Your task to perform on an android device: turn off data saver in the chrome app Image 0: 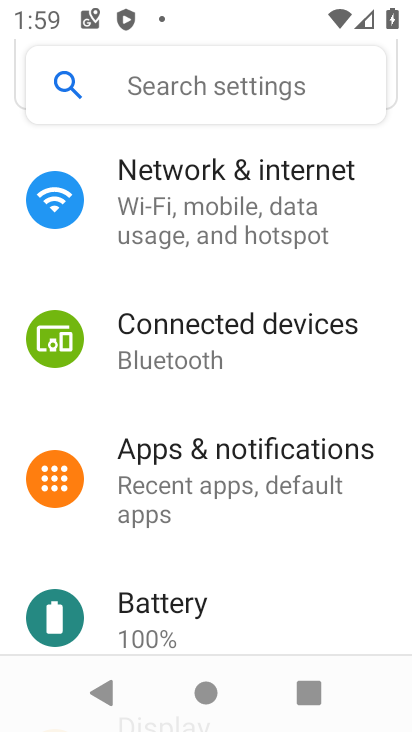
Step 0: press home button
Your task to perform on an android device: turn off data saver in the chrome app Image 1: 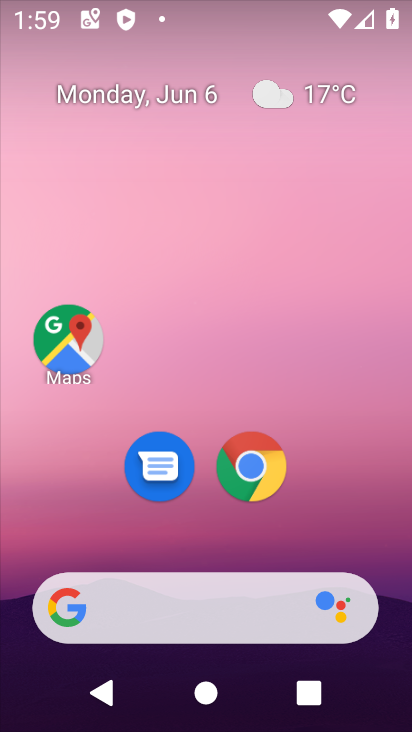
Step 1: click (253, 459)
Your task to perform on an android device: turn off data saver in the chrome app Image 2: 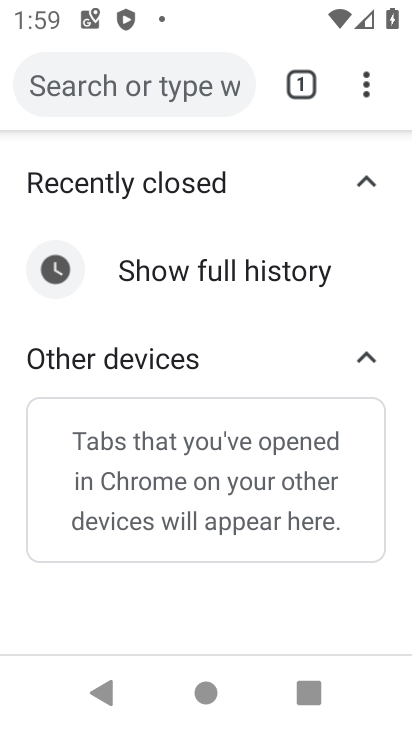
Step 2: drag from (365, 85) to (148, 498)
Your task to perform on an android device: turn off data saver in the chrome app Image 3: 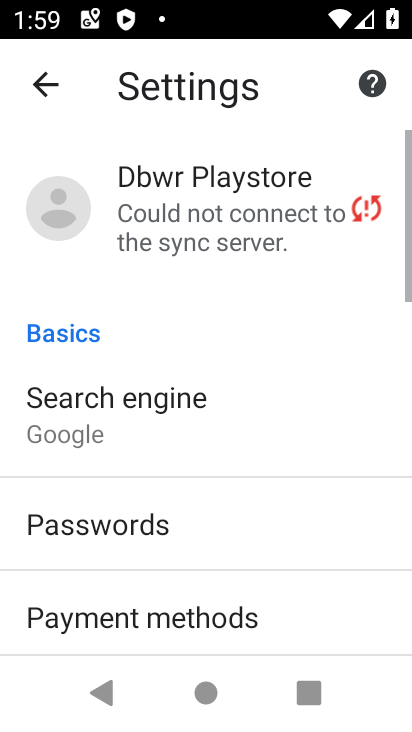
Step 3: drag from (282, 599) to (283, 123)
Your task to perform on an android device: turn off data saver in the chrome app Image 4: 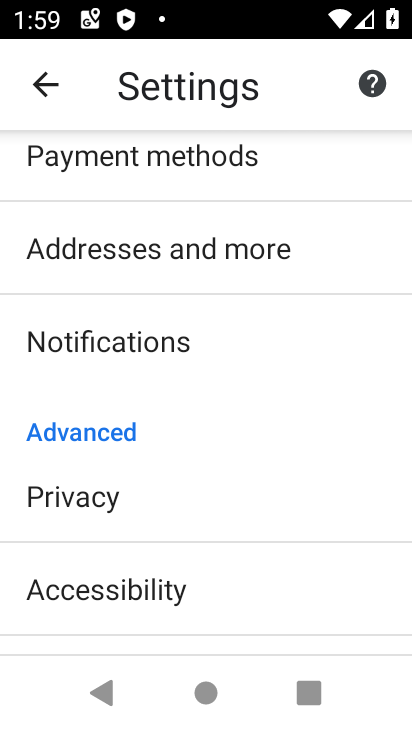
Step 4: drag from (249, 460) to (249, 173)
Your task to perform on an android device: turn off data saver in the chrome app Image 5: 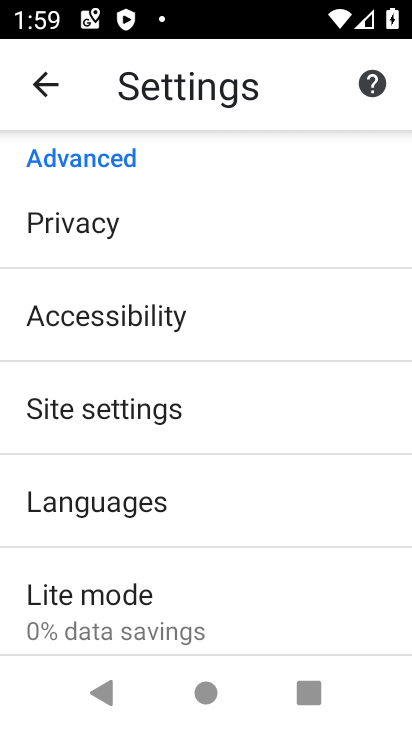
Step 5: click (131, 585)
Your task to perform on an android device: turn off data saver in the chrome app Image 6: 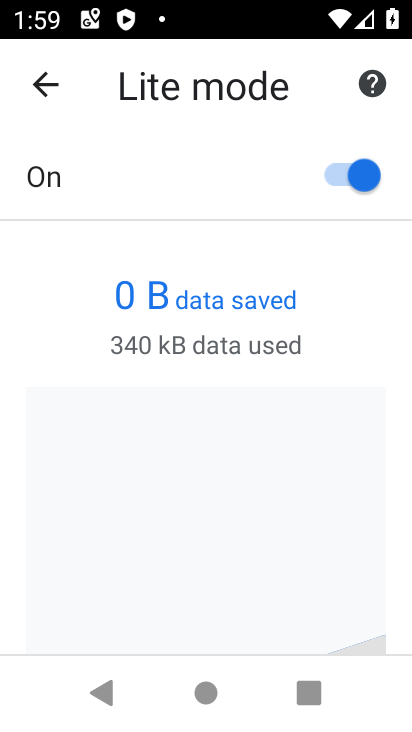
Step 6: click (336, 189)
Your task to perform on an android device: turn off data saver in the chrome app Image 7: 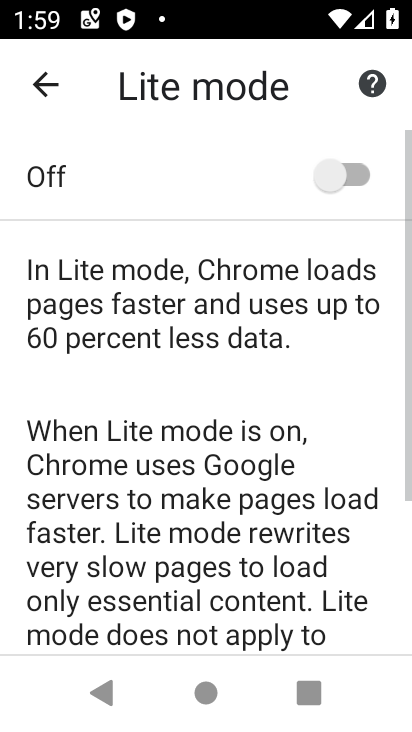
Step 7: task complete